Your task to perform on an android device: make emails show in primary in the gmail app Image 0: 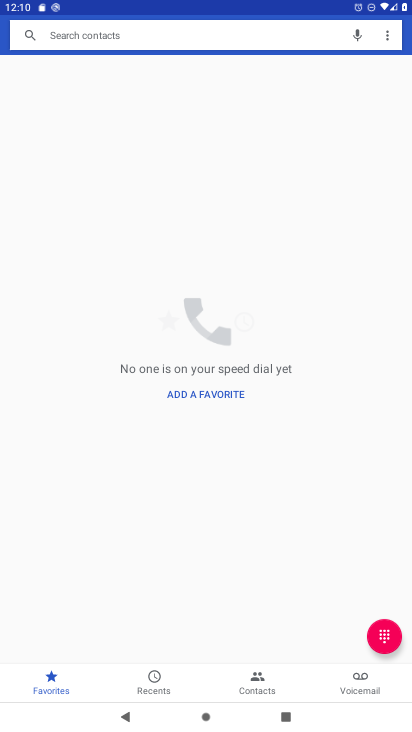
Step 0: press home button
Your task to perform on an android device: make emails show in primary in the gmail app Image 1: 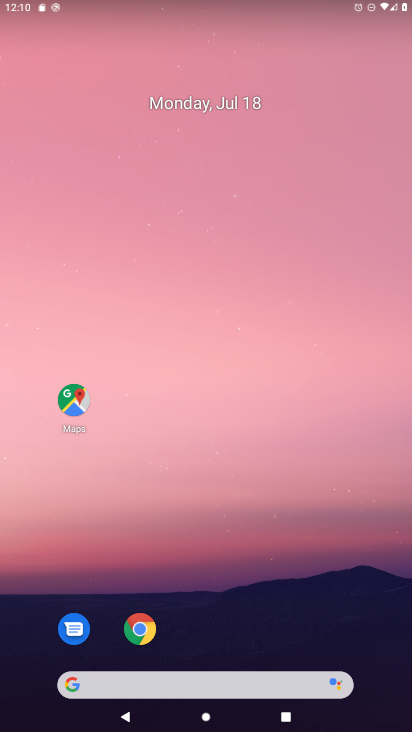
Step 1: drag from (174, 680) to (223, 265)
Your task to perform on an android device: make emails show in primary in the gmail app Image 2: 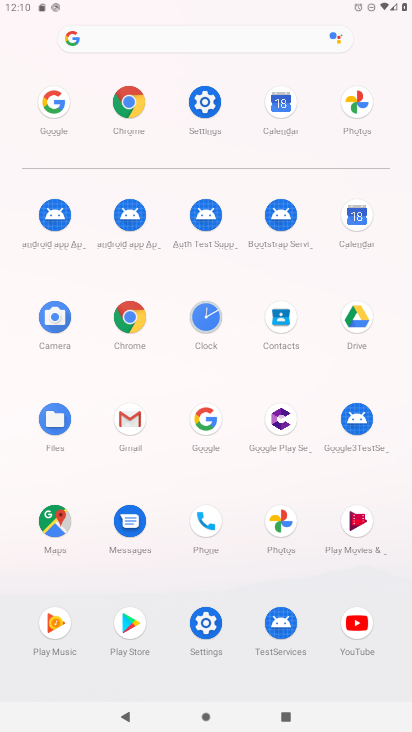
Step 2: click (131, 419)
Your task to perform on an android device: make emails show in primary in the gmail app Image 3: 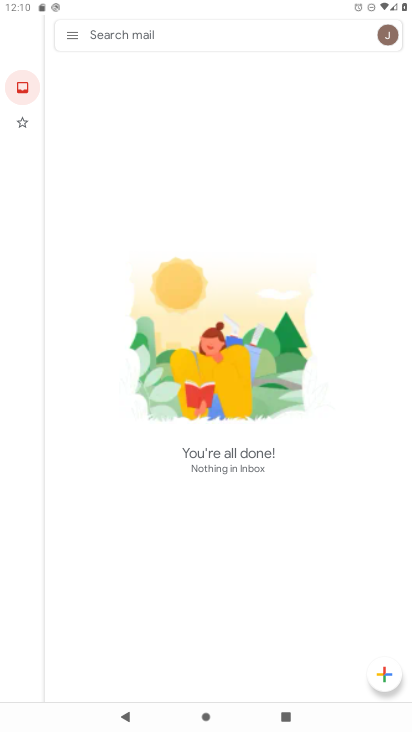
Step 3: click (67, 29)
Your task to perform on an android device: make emails show in primary in the gmail app Image 4: 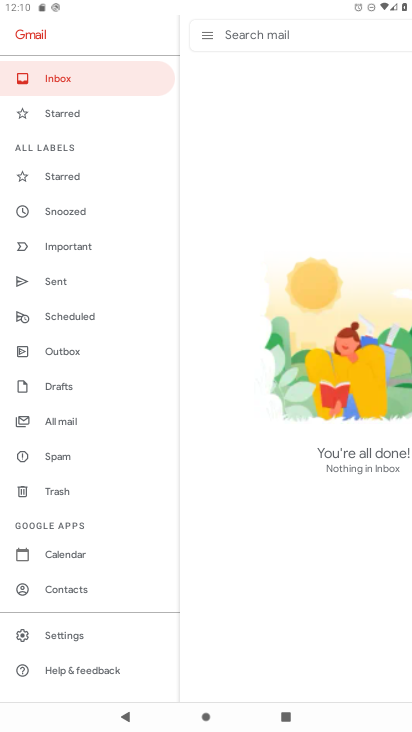
Step 4: drag from (73, 433) to (112, 313)
Your task to perform on an android device: make emails show in primary in the gmail app Image 5: 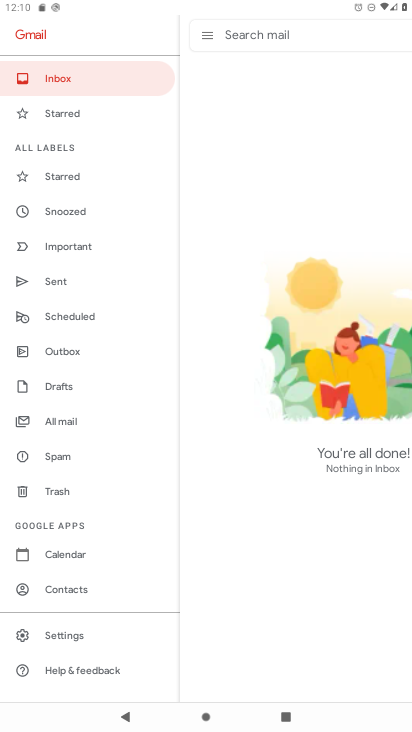
Step 5: click (70, 628)
Your task to perform on an android device: make emails show in primary in the gmail app Image 6: 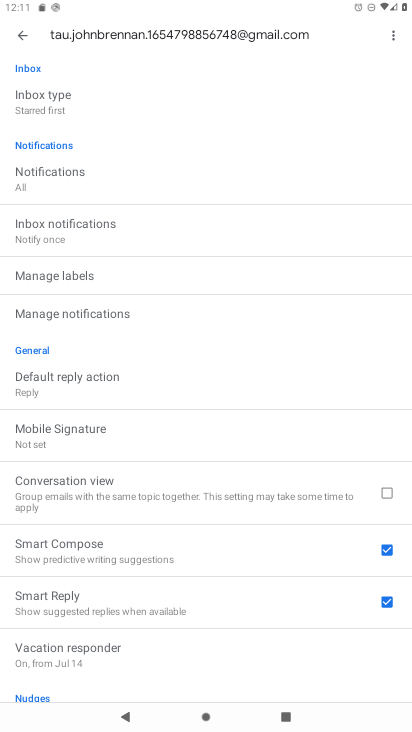
Step 6: click (56, 106)
Your task to perform on an android device: make emails show in primary in the gmail app Image 7: 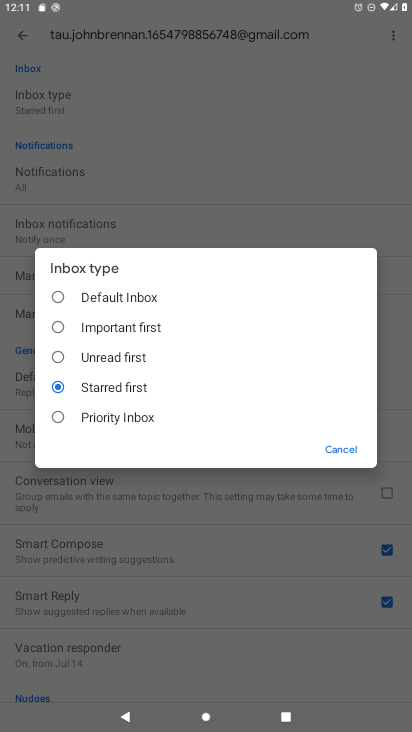
Step 7: click (57, 291)
Your task to perform on an android device: make emails show in primary in the gmail app Image 8: 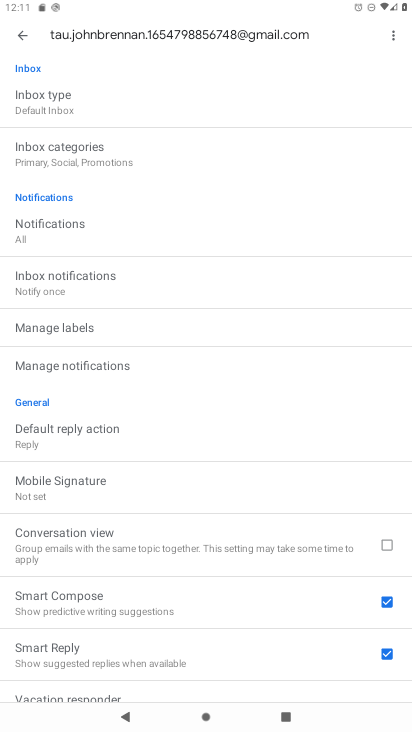
Step 8: click (121, 168)
Your task to perform on an android device: make emails show in primary in the gmail app Image 9: 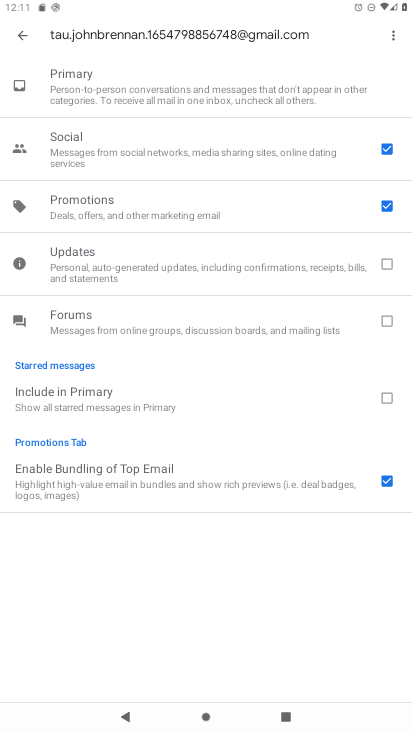
Step 9: click (396, 151)
Your task to perform on an android device: make emails show in primary in the gmail app Image 10: 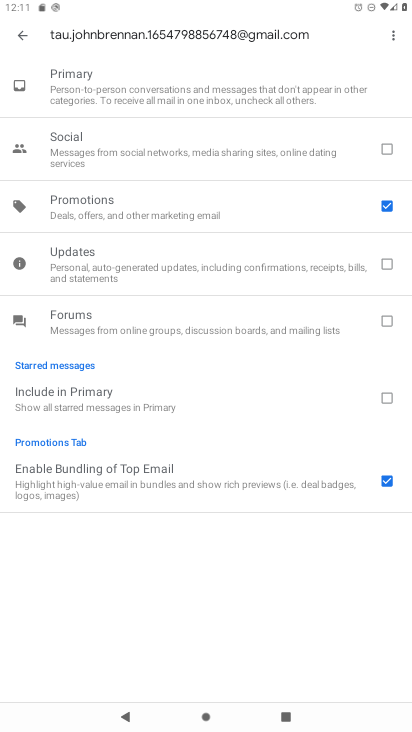
Step 10: click (391, 206)
Your task to perform on an android device: make emails show in primary in the gmail app Image 11: 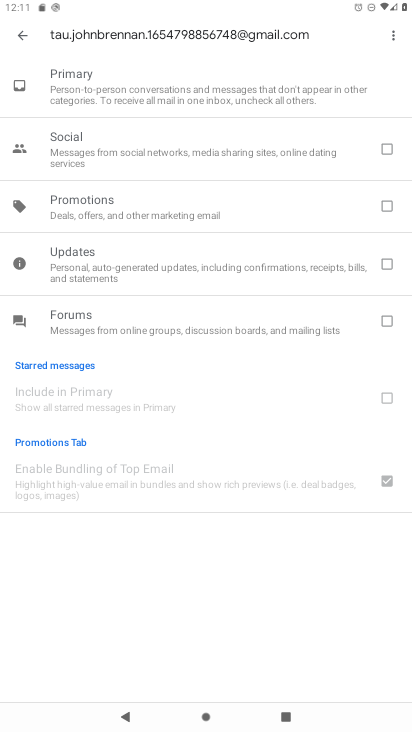
Step 11: task complete